Your task to perform on an android device: toggle show notifications on the lock screen Image 0: 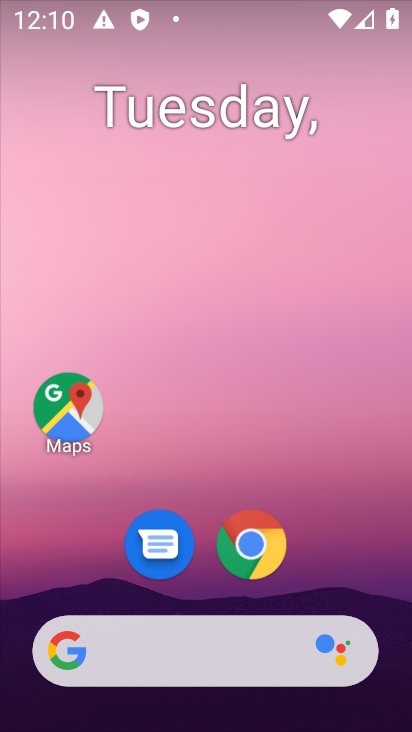
Step 0: drag from (333, 553) to (321, 11)
Your task to perform on an android device: toggle show notifications on the lock screen Image 1: 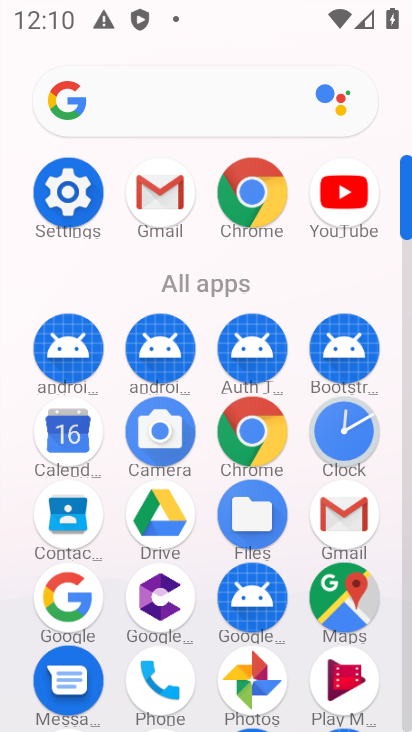
Step 1: drag from (107, 646) to (127, 286)
Your task to perform on an android device: toggle show notifications on the lock screen Image 2: 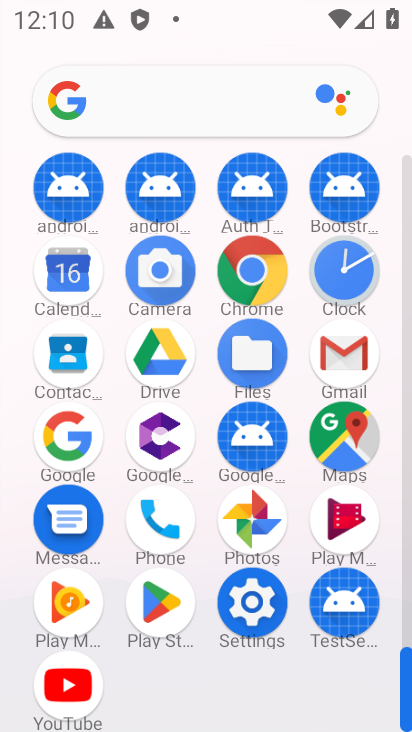
Step 2: click (245, 602)
Your task to perform on an android device: toggle show notifications on the lock screen Image 3: 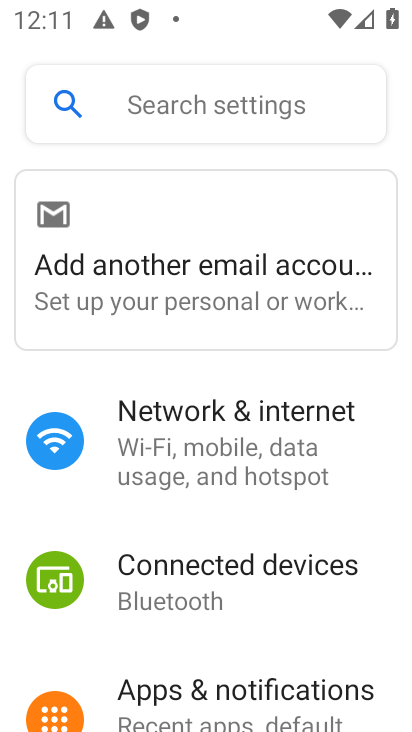
Step 3: click (240, 701)
Your task to perform on an android device: toggle show notifications on the lock screen Image 4: 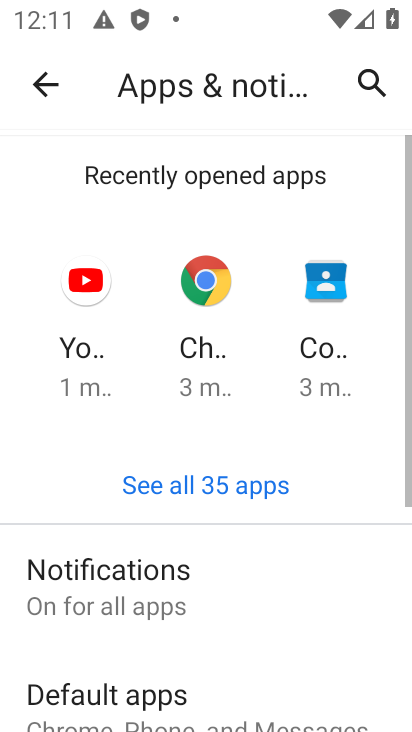
Step 4: click (139, 581)
Your task to perform on an android device: toggle show notifications on the lock screen Image 5: 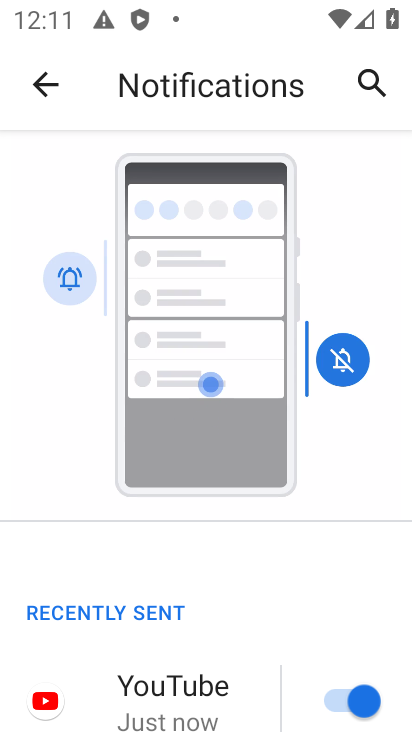
Step 5: drag from (258, 632) to (272, 115)
Your task to perform on an android device: toggle show notifications on the lock screen Image 6: 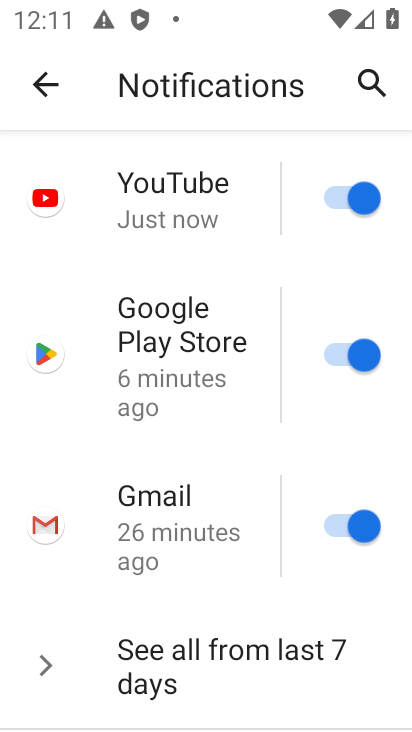
Step 6: drag from (244, 443) to (238, 188)
Your task to perform on an android device: toggle show notifications on the lock screen Image 7: 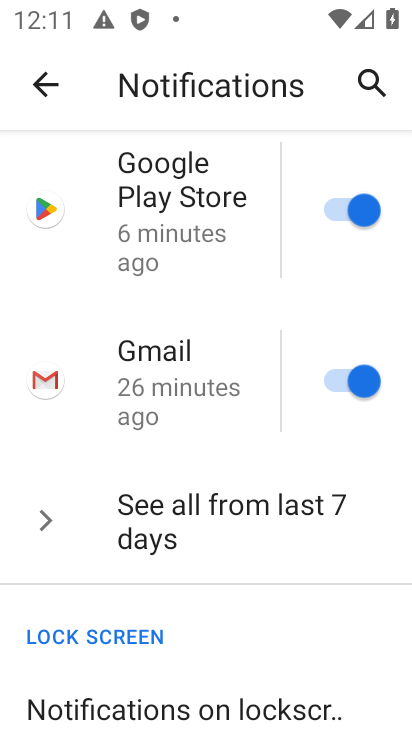
Step 7: click (222, 701)
Your task to perform on an android device: toggle show notifications on the lock screen Image 8: 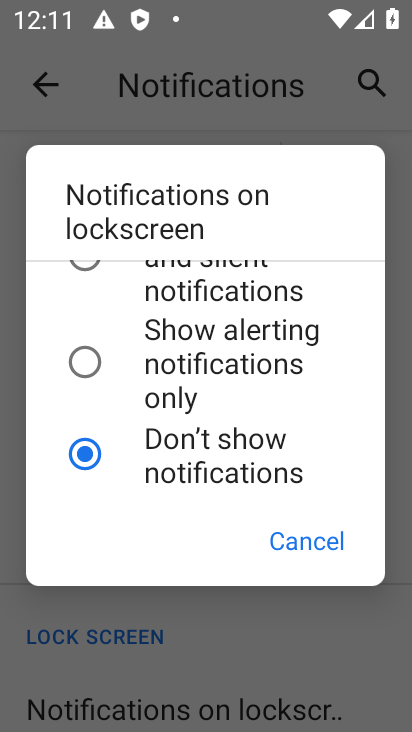
Step 8: click (209, 338)
Your task to perform on an android device: toggle show notifications on the lock screen Image 9: 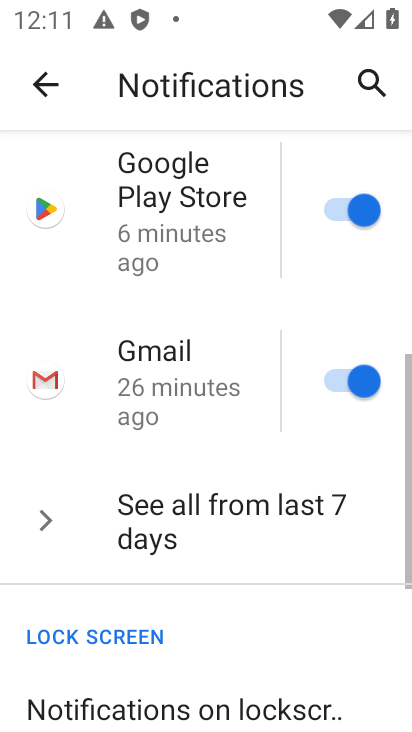
Step 9: task complete